Your task to perform on an android device: Search for vegetarian restaurants on Maps Image 0: 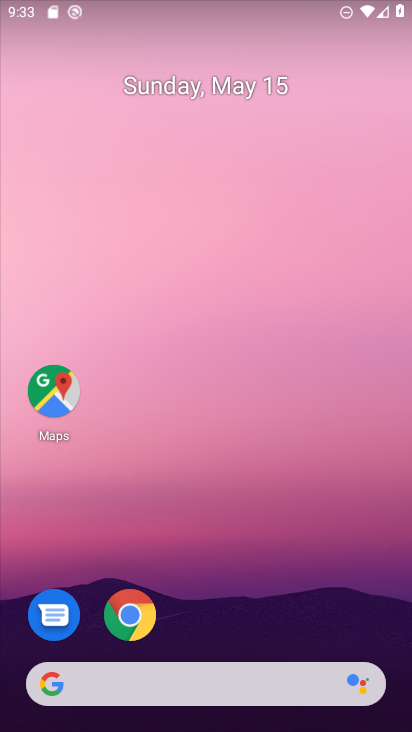
Step 0: click (62, 399)
Your task to perform on an android device: Search for vegetarian restaurants on Maps Image 1: 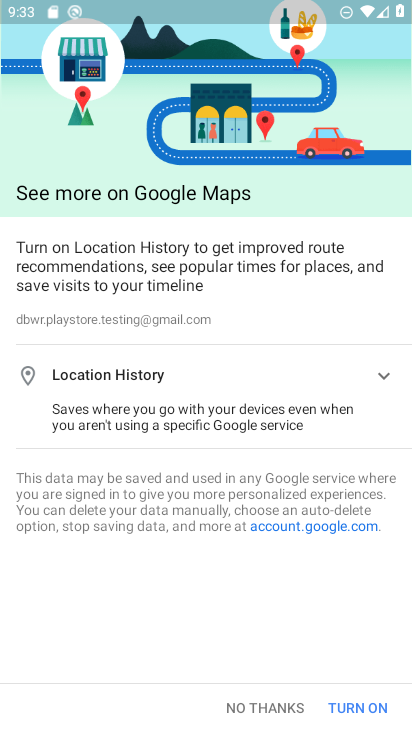
Step 1: click (299, 713)
Your task to perform on an android device: Search for vegetarian restaurants on Maps Image 2: 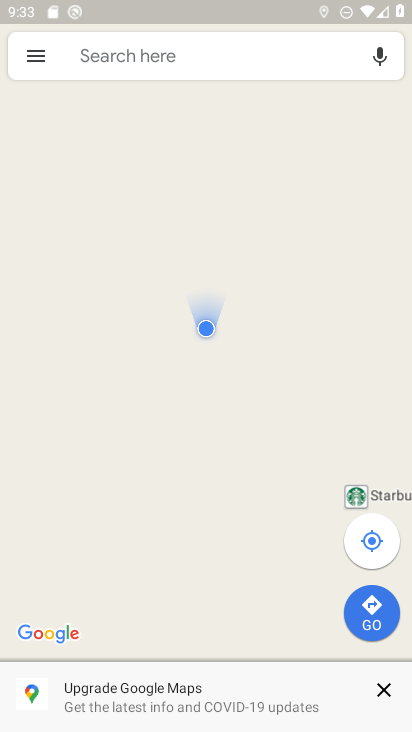
Step 2: click (153, 49)
Your task to perform on an android device: Search for vegetarian restaurants on Maps Image 3: 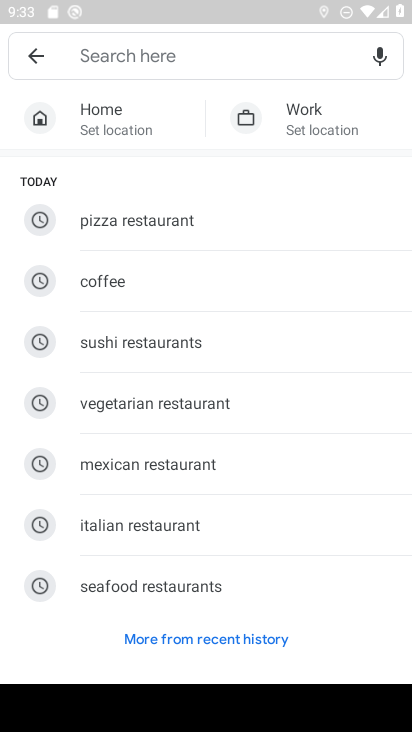
Step 3: type "Vegetarian restaurants"
Your task to perform on an android device: Search for vegetarian restaurants on Maps Image 4: 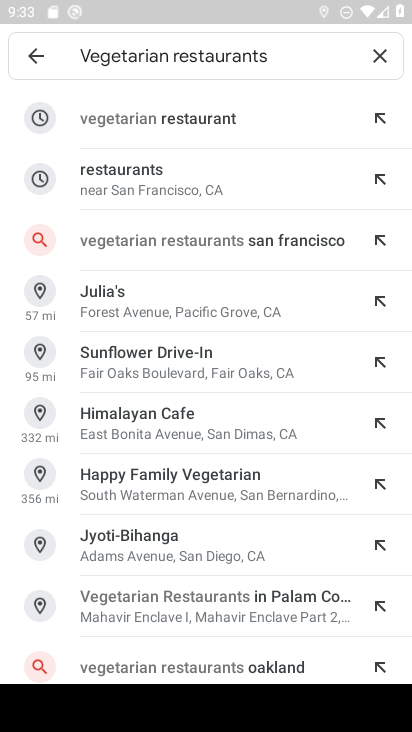
Step 4: click (238, 127)
Your task to perform on an android device: Search for vegetarian restaurants on Maps Image 5: 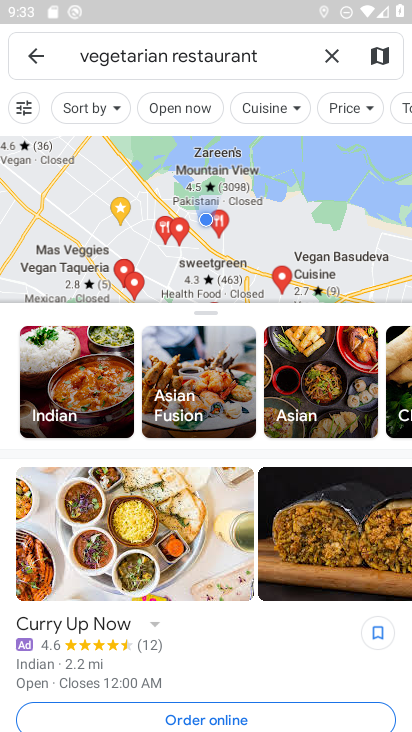
Step 5: task complete